Your task to perform on an android device: Open accessibility settings Image 0: 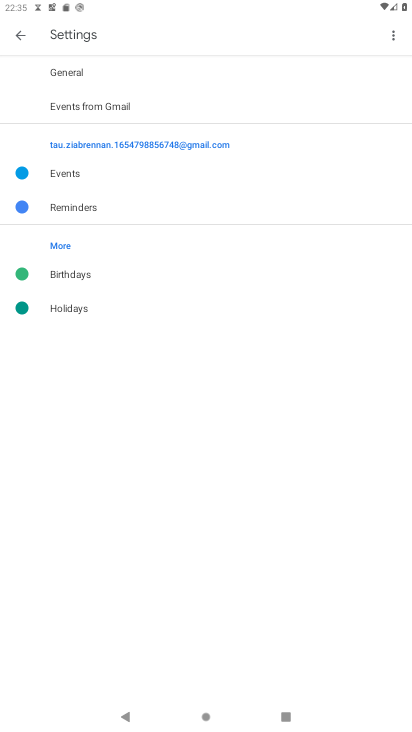
Step 0: press home button
Your task to perform on an android device: Open accessibility settings Image 1: 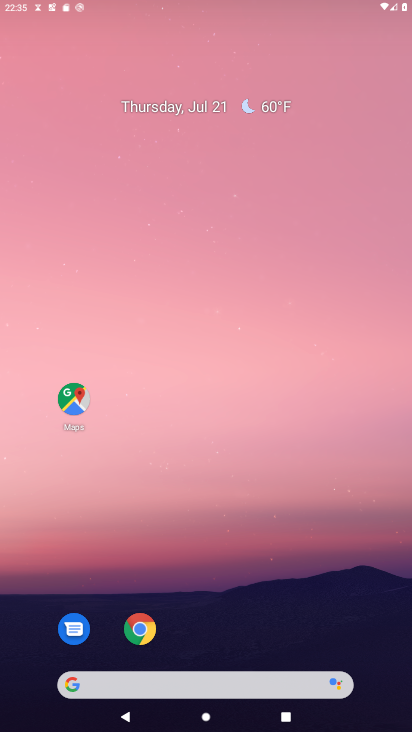
Step 1: drag from (206, 624) to (226, 51)
Your task to perform on an android device: Open accessibility settings Image 2: 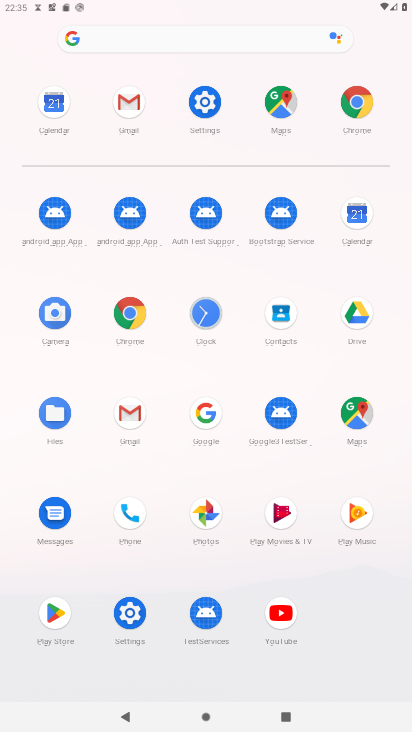
Step 2: click (201, 116)
Your task to perform on an android device: Open accessibility settings Image 3: 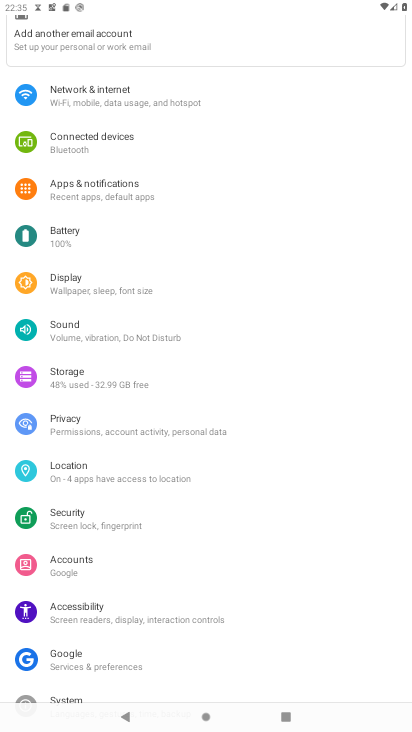
Step 3: click (126, 611)
Your task to perform on an android device: Open accessibility settings Image 4: 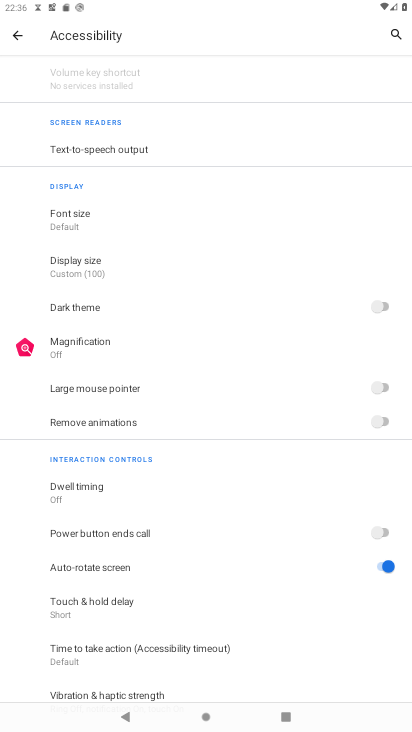
Step 4: task complete